Your task to perform on an android device: turn on notifications settings in the gmail app Image 0: 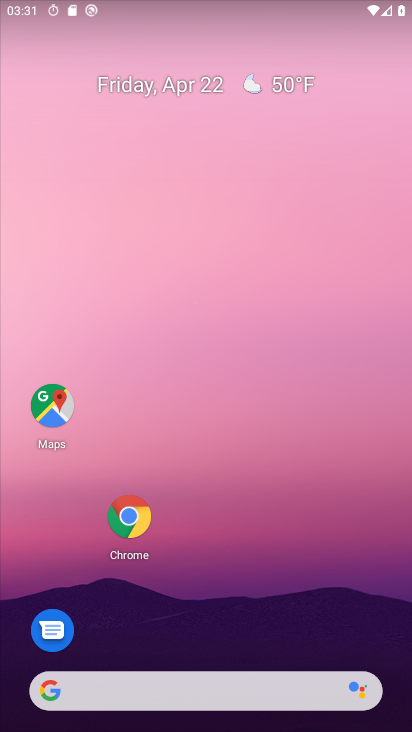
Step 0: click (351, 270)
Your task to perform on an android device: turn on notifications settings in the gmail app Image 1: 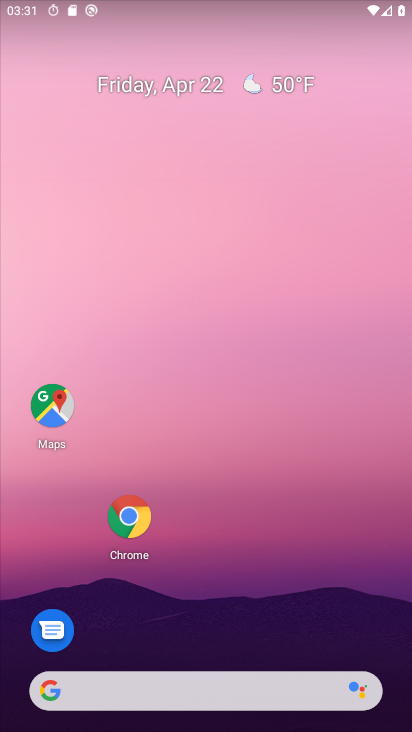
Step 1: click (364, 251)
Your task to perform on an android device: turn on notifications settings in the gmail app Image 2: 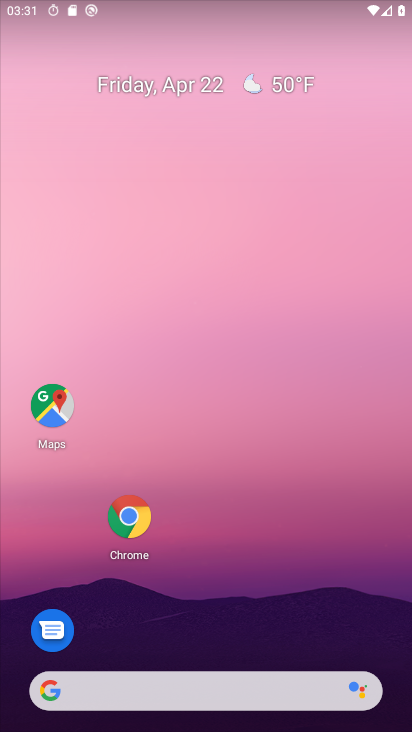
Step 2: drag from (359, 237) to (347, 149)
Your task to perform on an android device: turn on notifications settings in the gmail app Image 3: 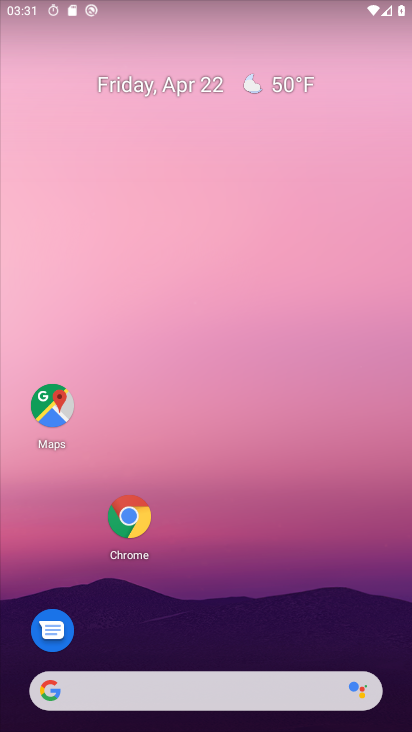
Step 3: click (334, 153)
Your task to perform on an android device: turn on notifications settings in the gmail app Image 4: 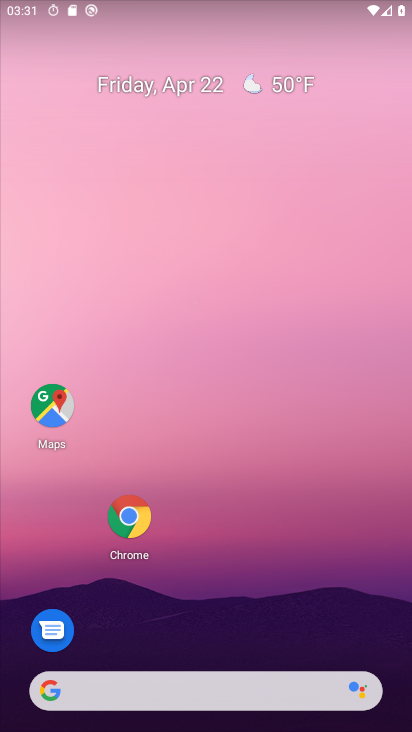
Step 4: drag from (386, 509) to (347, 258)
Your task to perform on an android device: turn on notifications settings in the gmail app Image 5: 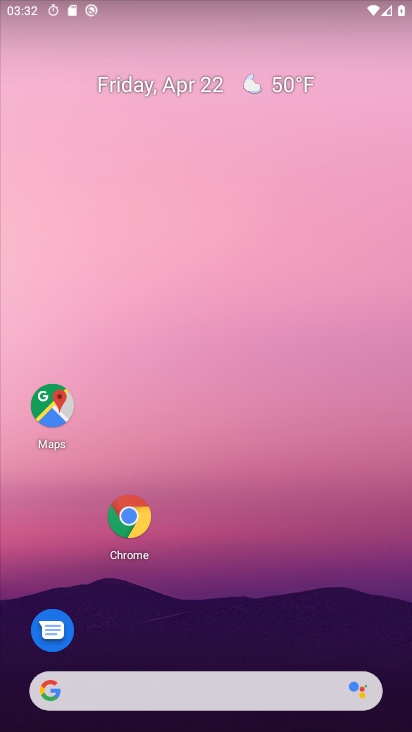
Step 5: drag from (394, 660) to (355, 243)
Your task to perform on an android device: turn on notifications settings in the gmail app Image 6: 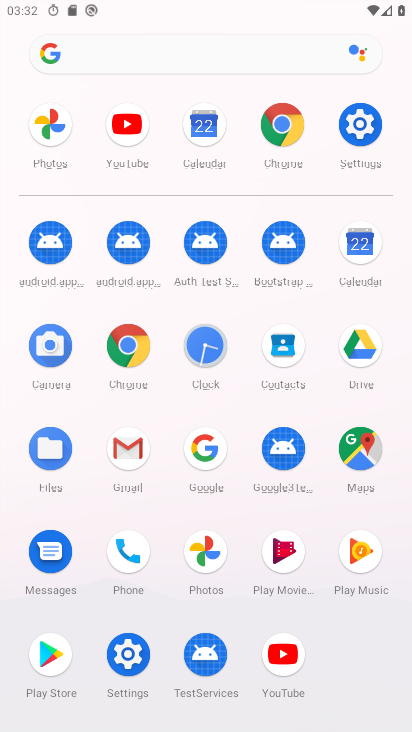
Step 6: click (136, 442)
Your task to perform on an android device: turn on notifications settings in the gmail app Image 7: 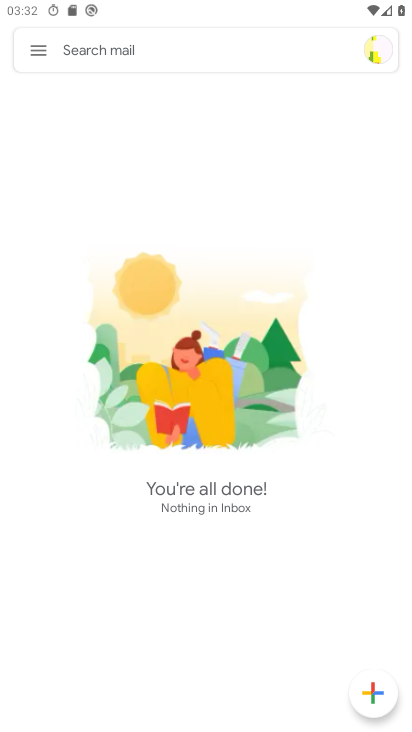
Step 7: click (32, 53)
Your task to perform on an android device: turn on notifications settings in the gmail app Image 8: 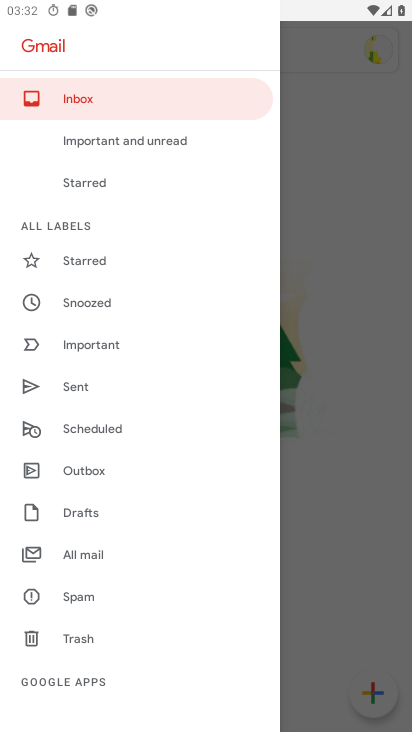
Step 8: drag from (169, 660) to (182, 311)
Your task to perform on an android device: turn on notifications settings in the gmail app Image 9: 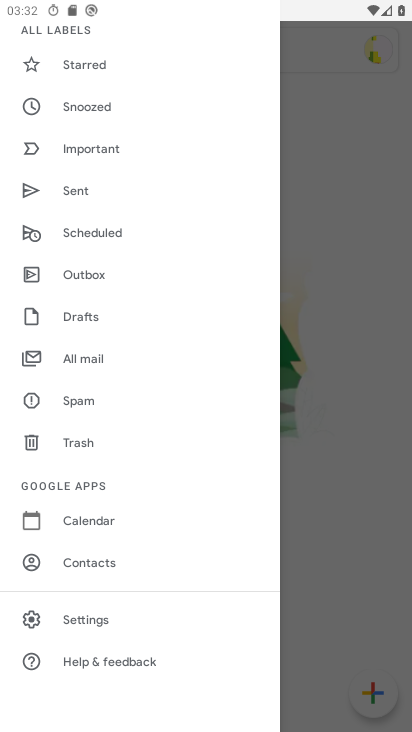
Step 9: click (70, 621)
Your task to perform on an android device: turn on notifications settings in the gmail app Image 10: 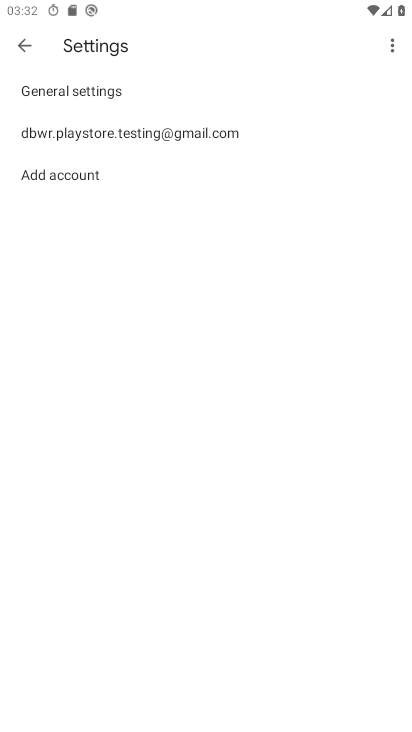
Step 10: click (91, 87)
Your task to perform on an android device: turn on notifications settings in the gmail app Image 11: 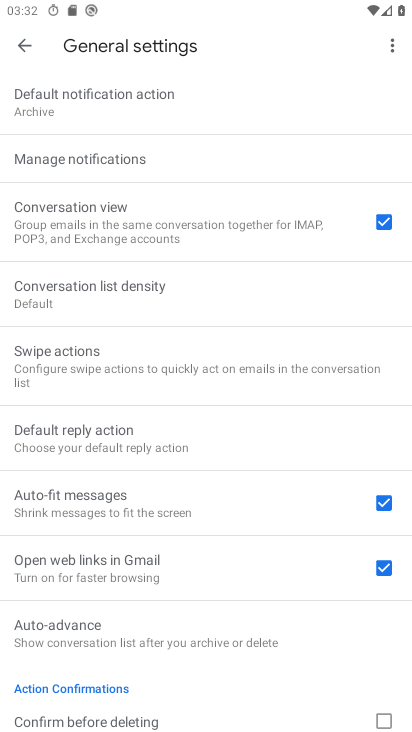
Step 11: click (81, 164)
Your task to perform on an android device: turn on notifications settings in the gmail app Image 12: 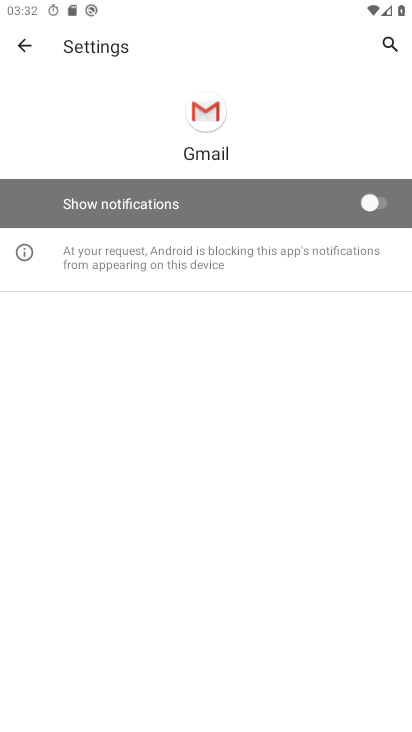
Step 12: click (386, 195)
Your task to perform on an android device: turn on notifications settings in the gmail app Image 13: 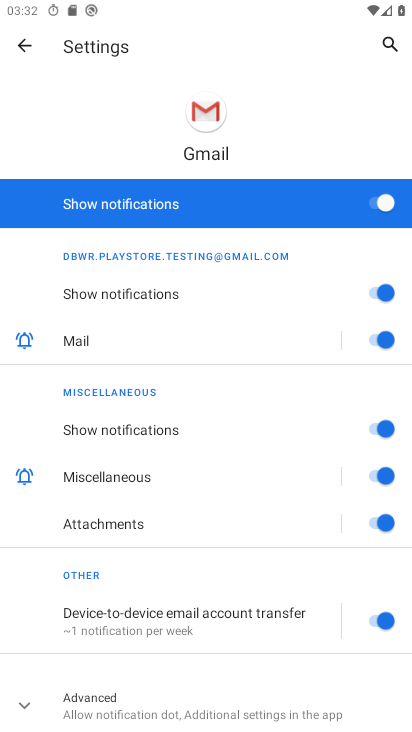
Step 13: task complete